Your task to perform on an android device: Open Google Maps and go to "Timeline" Image 0: 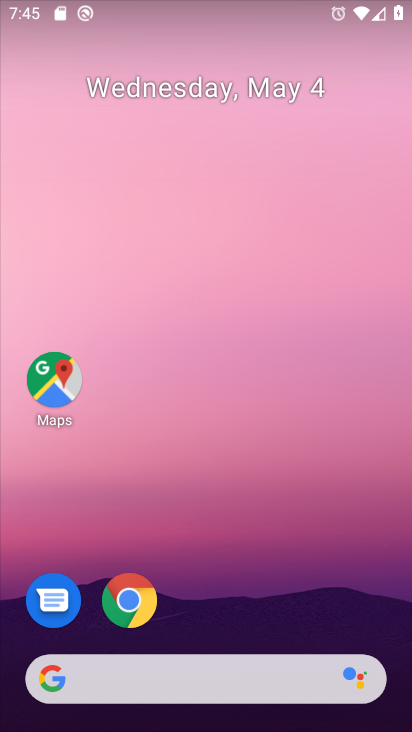
Step 0: drag from (195, 649) to (410, 31)
Your task to perform on an android device: Open Google Maps and go to "Timeline" Image 1: 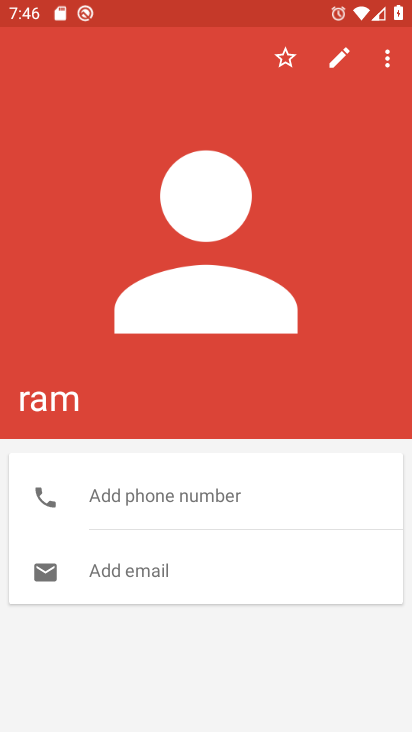
Step 1: press home button
Your task to perform on an android device: Open Google Maps and go to "Timeline" Image 2: 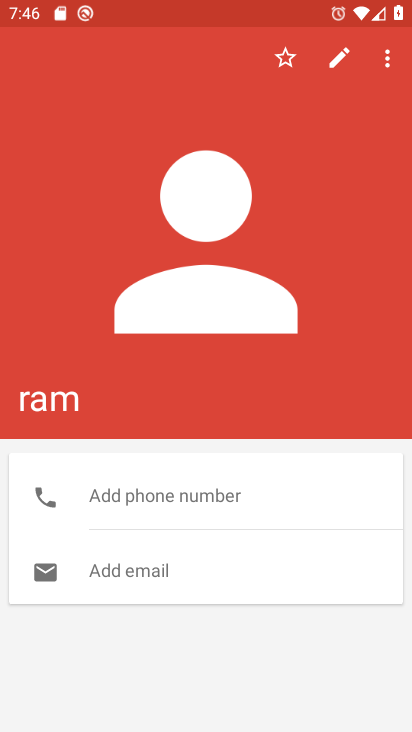
Step 2: drag from (410, 31) to (409, 523)
Your task to perform on an android device: Open Google Maps and go to "Timeline" Image 3: 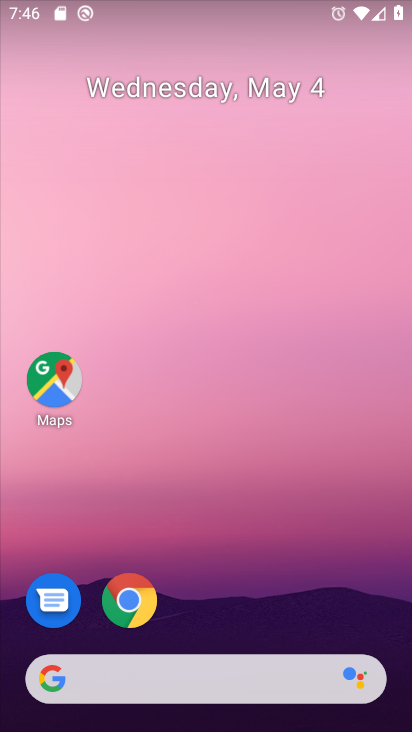
Step 3: click (45, 376)
Your task to perform on an android device: Open Google Maps and go to "Timeline" Image 4: 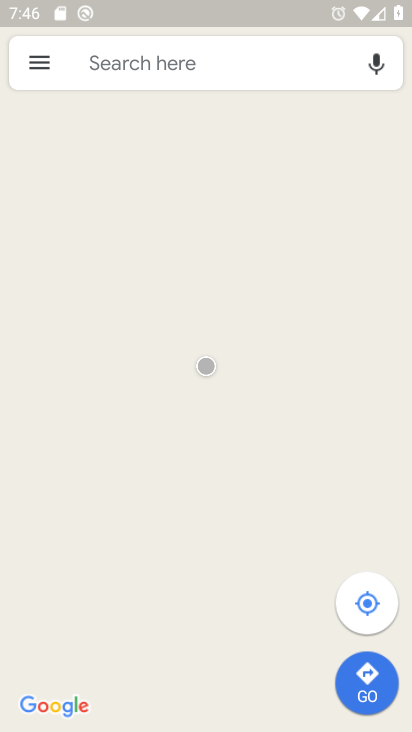
Step 4: click (38, 75)
Your task to perform on an android device: Open Google Maps and go to "Timeline" Image 5: 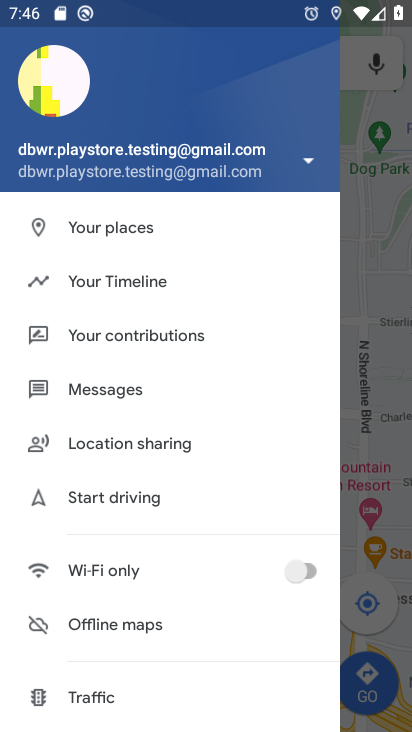
Step 5: click (120, 279)
Your task to perform on an android device: Open Google Maps and go to "Timeline" Image 6: 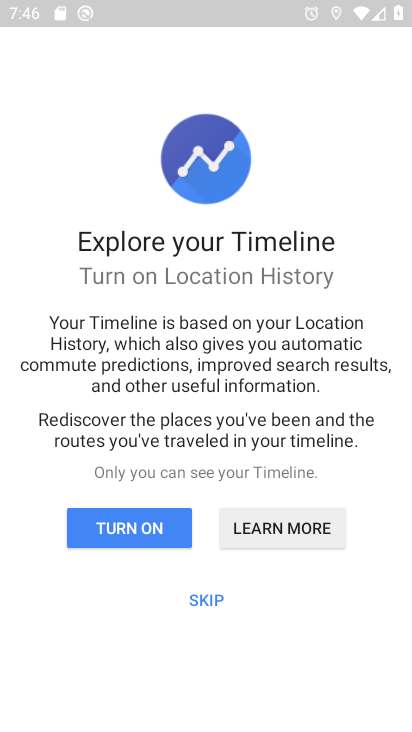
Step 6: click (201, 593)
Your task to perform on an android device: Open Google Maps and go to "Timeline" Image 7: 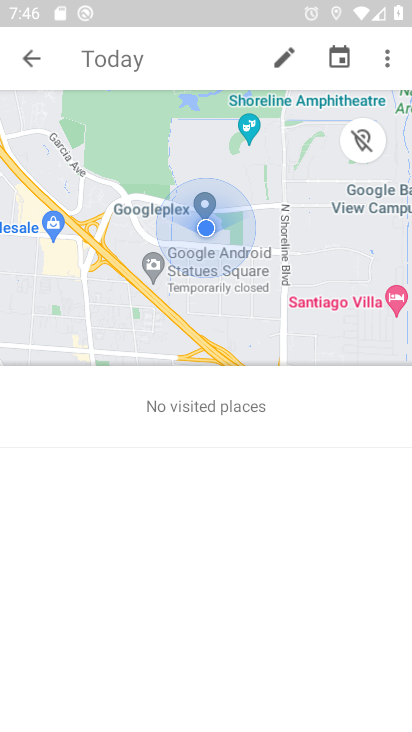
Step 7: task complete